Your task to perform on an android device: toggle data saver in the chrome app Image 0: 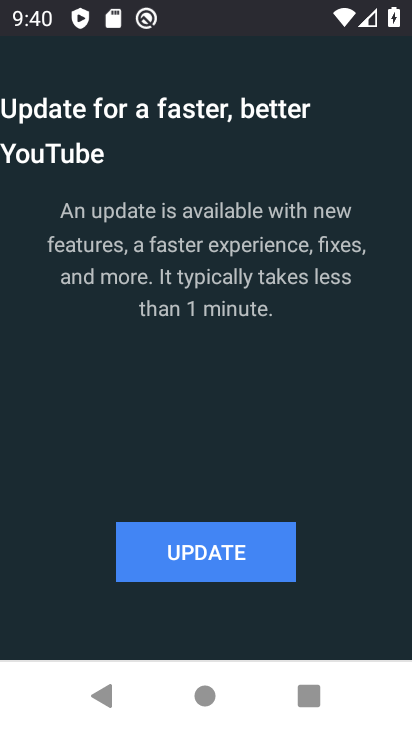
Step 0: press back button
Your task to perform on an android device: toggle data saver in the chrome app Image 1: 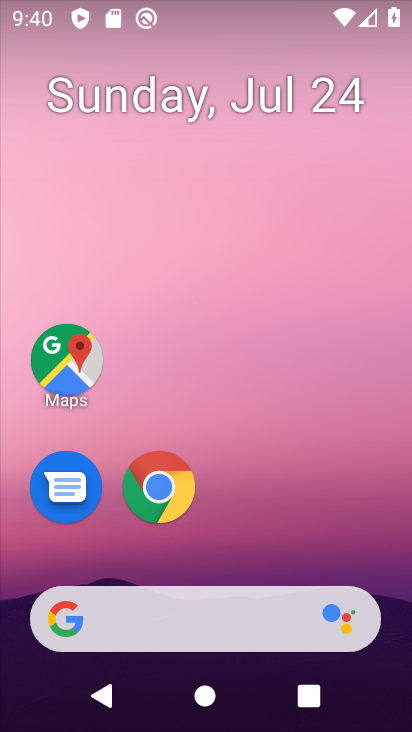
Step 1: click (142, 482)
Your task to perform on an android device: toggle data saver in the chrome app Image 2: 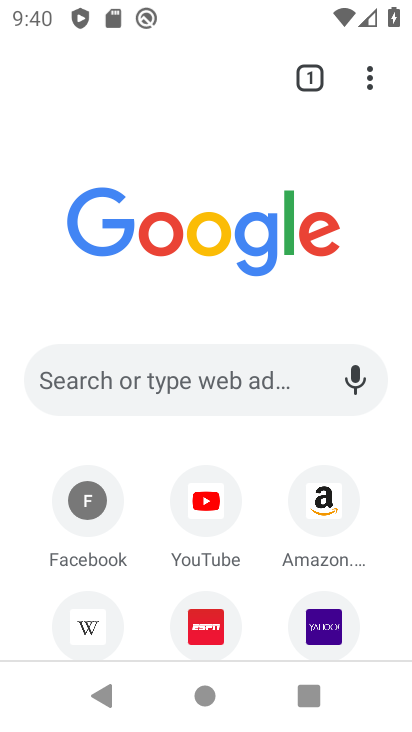
Step 2: drag from (365, 79) to (114, 547)
Your task to perform on an android device: toggle data saver in the chrome app Image 3: 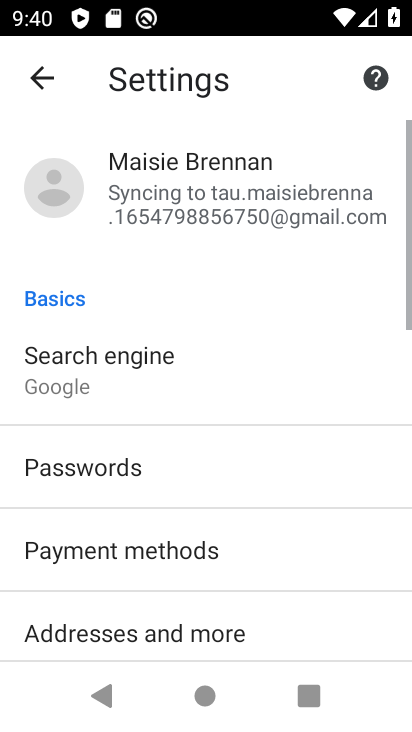
Step 3: drag from (156, 612) to (271, 66)
Your task to perform on an android device: toggle data saver in the chrome app Image 4: 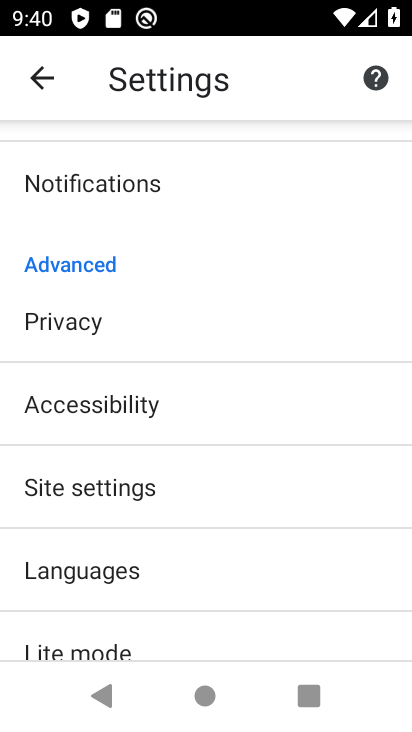
Step 4: click (63, 644)
Your task to perform on an android device: toggle data saver in the chrome app Image 5: 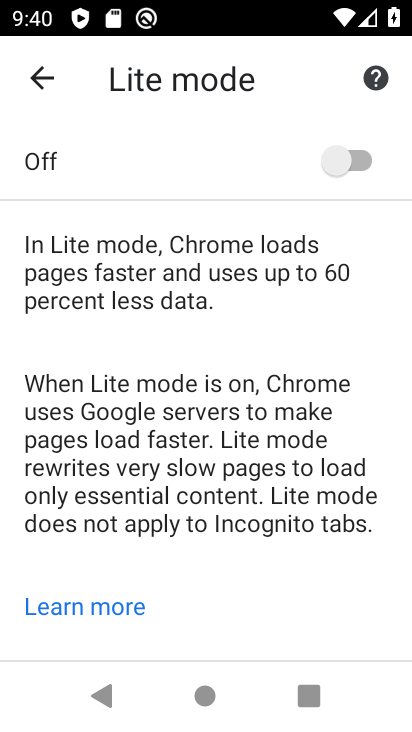
Step 5: click (324, 161)
Your task to perform on an android device: toggle data saver in the chrome app Image 6: 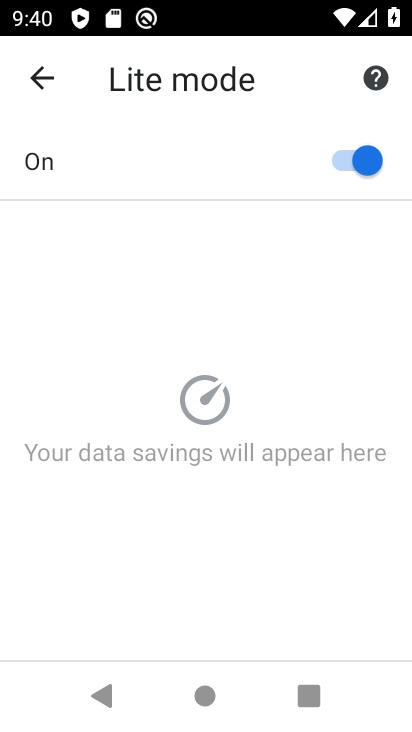
Step 6: task complete